Your task to perform on an android device: Go to Amazon Image 0: 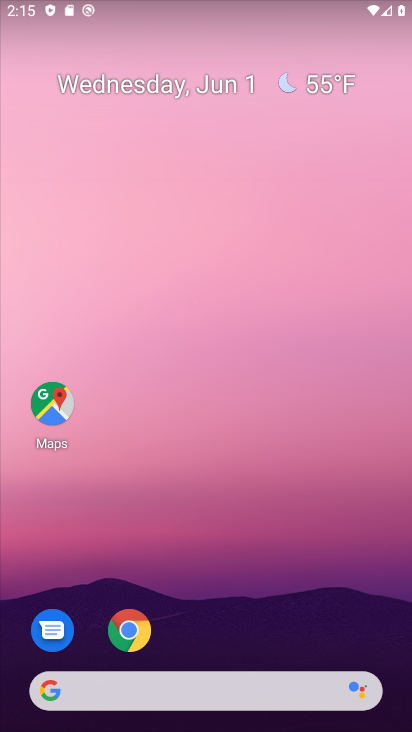
Step 0: click (122, 642)
Your task to perform on an android device: Go to Amazon Image 1: 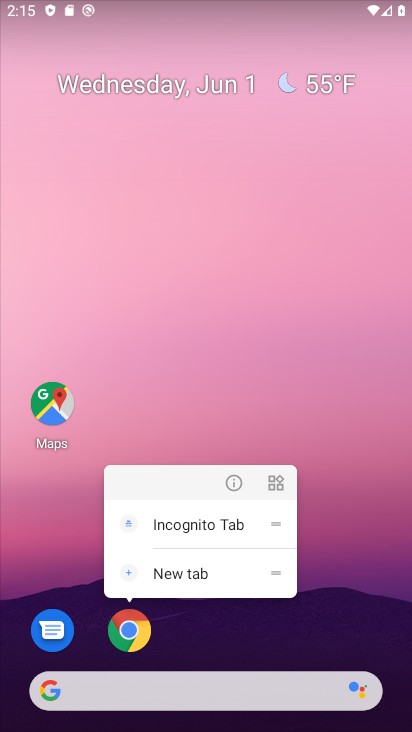
Step 1: click (132, 641)
Your task to perform on an android device: Go to Amazon Image 2: 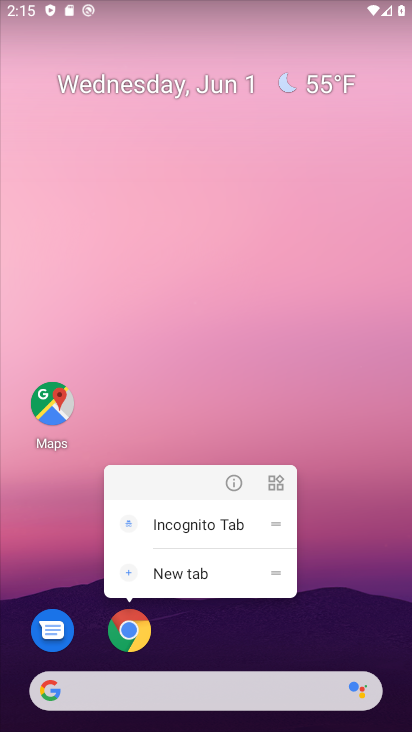
Step 2: click (129, 633)
Your task to perform on an android device: Go to Amazon Image 3: 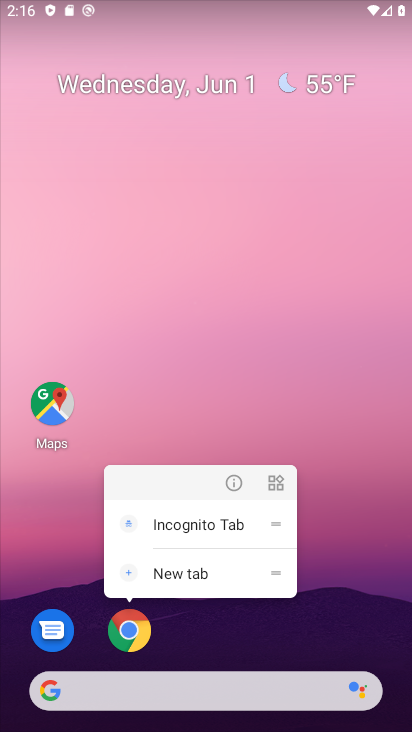
Step 3: click (128, 637)
Your task to perform on an android device: Go to Amazon Image 4: 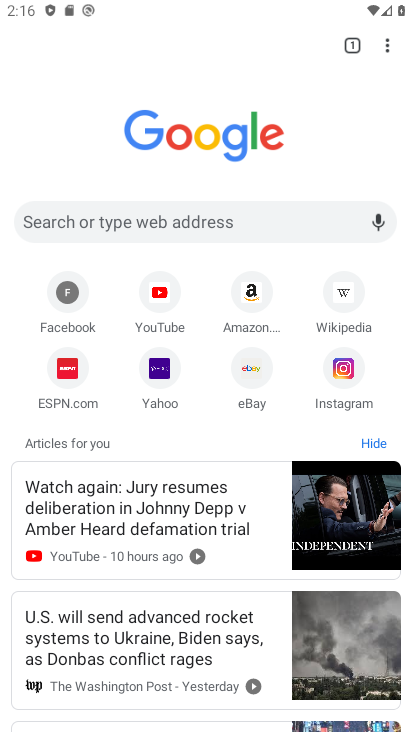
Step 4: click (245, 306)
Your task to perform on an android device: Go to Amazon Image 5: 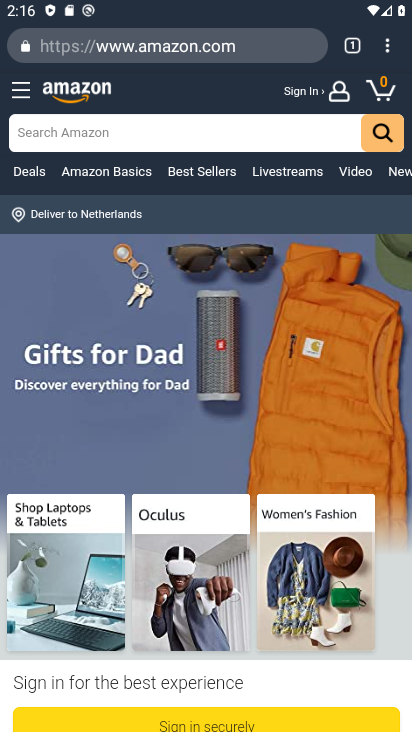
Step 5: task complete